Your task to perform on an android device: Search for seafood restaurants on Google Maps Image 0: 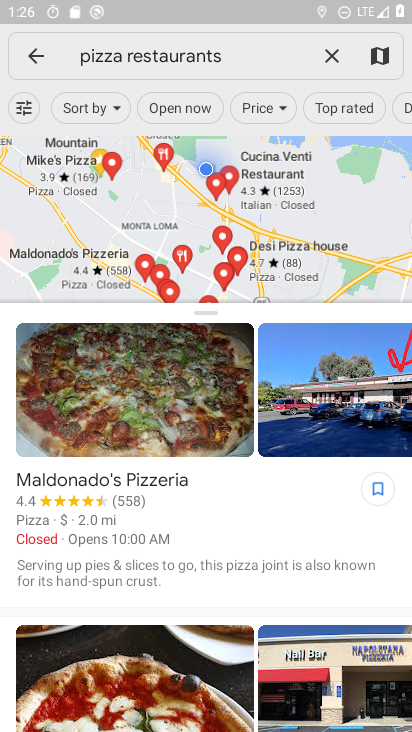
Step 0: click (247, 50)
Your task to perform on an android device: Search for seafood restaurants on Google Maps Image 1: 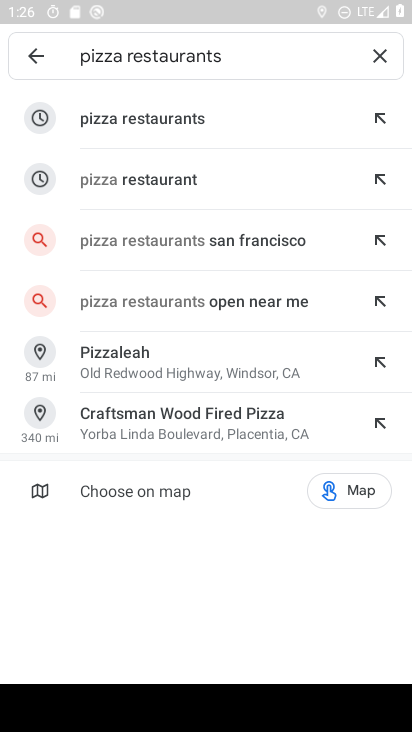
Step 1: click (385, 48)
Your task to perform on an android device: Search for seafood restaurants on Google Maps Image 2: 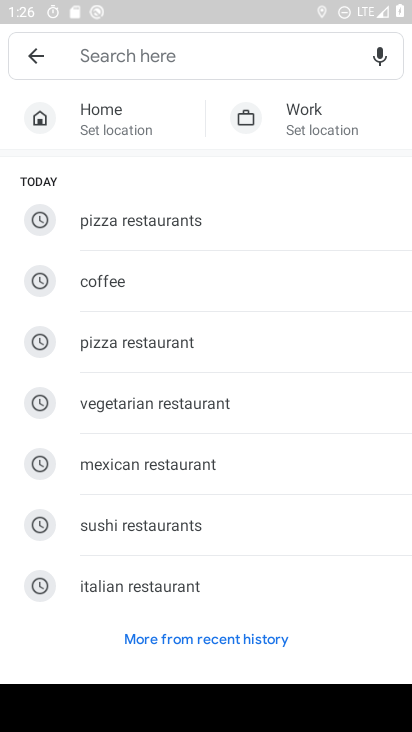
Step 2: type "seafood restaurants"
Your task to perform on an android device: Search for seafood restaurants on Google Maps Image 3: 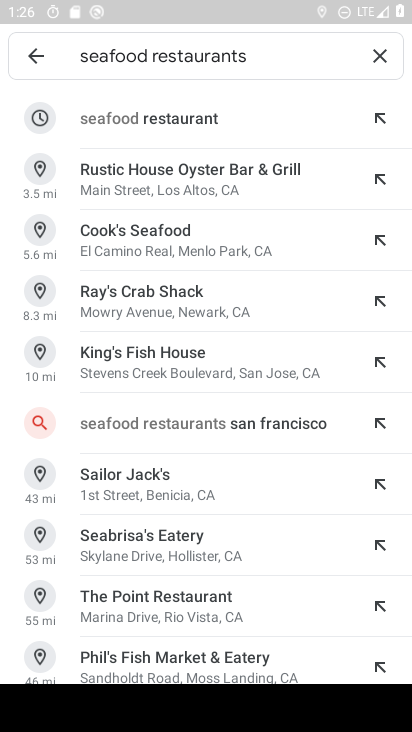
Step 3: press enter
Your task to perform on an android device: Search for seafood restaurants on Google Maps Image 4: 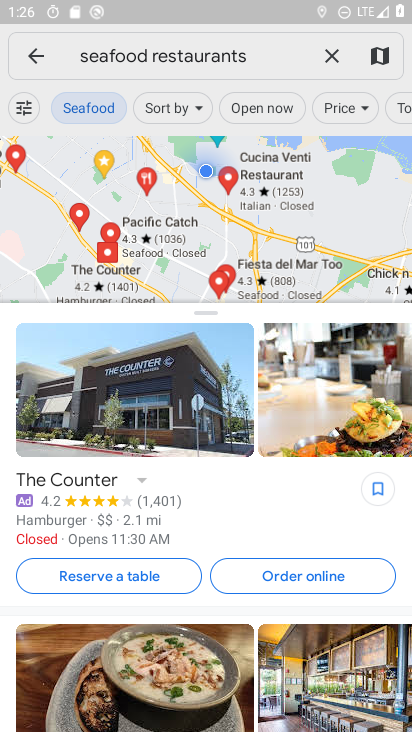
Step 4: task complete